Your task to perform on an android device: Go to calendar. Show me events next week Image 0: 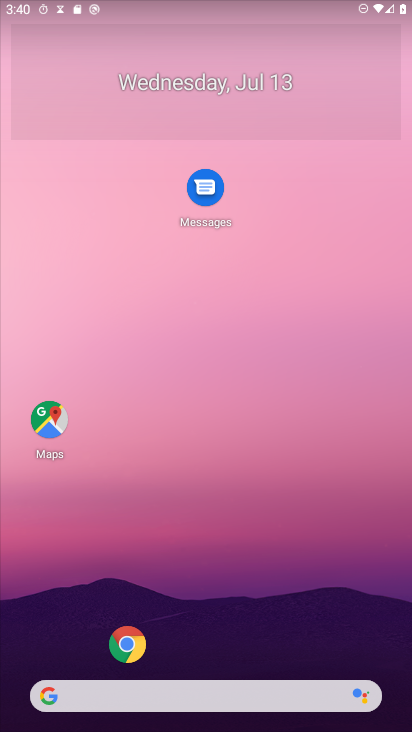
Step 0: drag from (21, 695) to (147, 329)
Your task to perform on an android device: Go to calendar. Show me events next week Image 1: 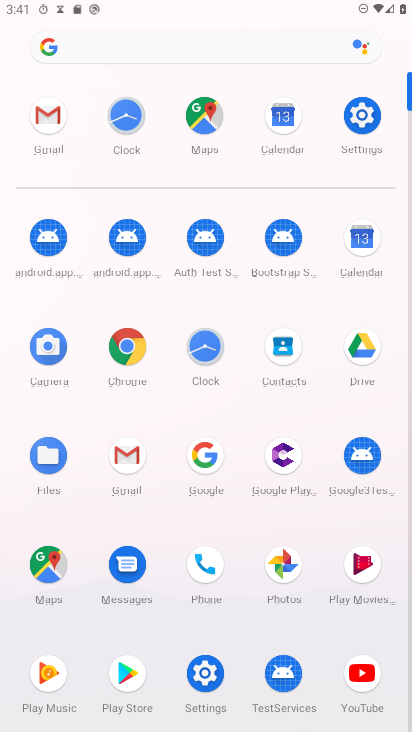
Step 1: click (281, 128)
Your task to perform on an android device: Go to calendar. Show me events next week Image 2: 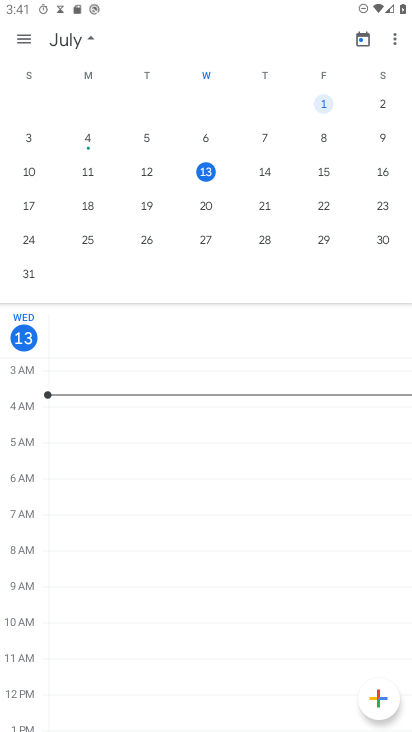
Step 2: click (284, 95)
Your task to perform on an android device: Go to calendar. Show me events next week Image 3: 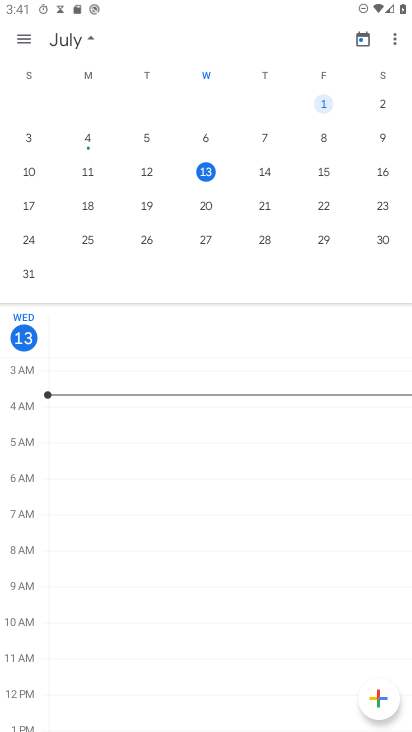
Step 3: click (24, 28)
Your task to perform on an android device: Go to calendar. Show me events next week Image 4: 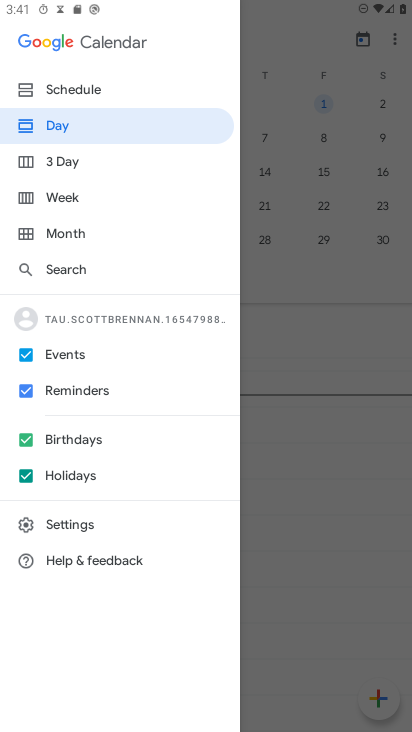
Step 4: click (303, 314)
Your task to perform on an android device: Go to calendar. Show me events next week Image 5: 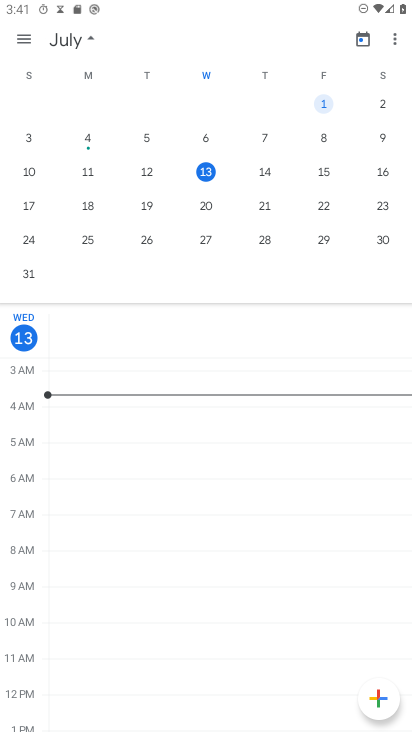
Step 5: task complete